Your task to perform on an android device: Go to CNN.com Image 0: 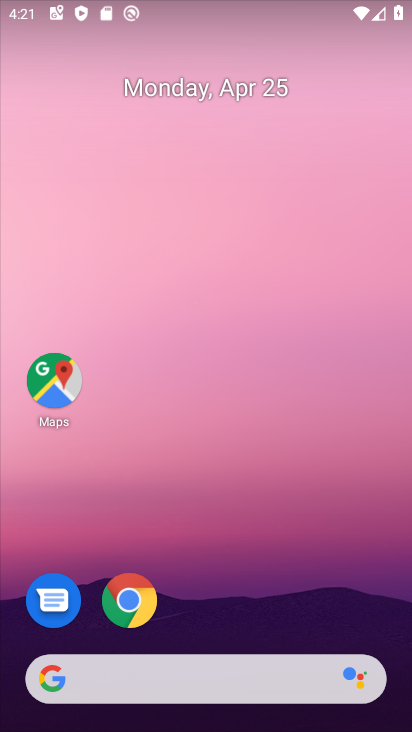
Step 0: drag from (335, 525) to (294, 19)
Your task to perform on an android device: Go to CNN.com Image 1: 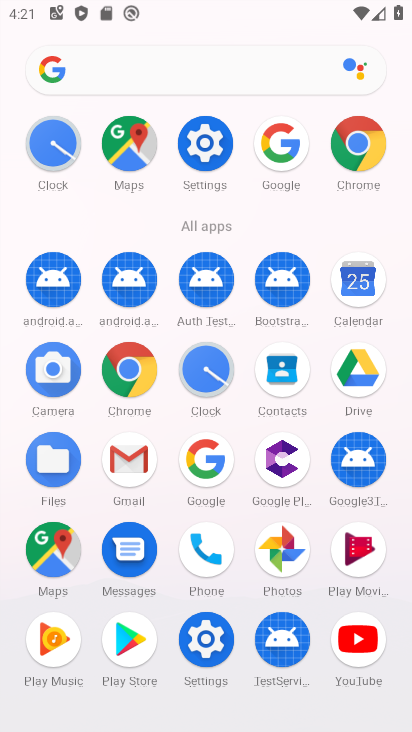
Step 1: click (355, 133)
Your task to perform on an android device: Go to CNN.com Image 2: 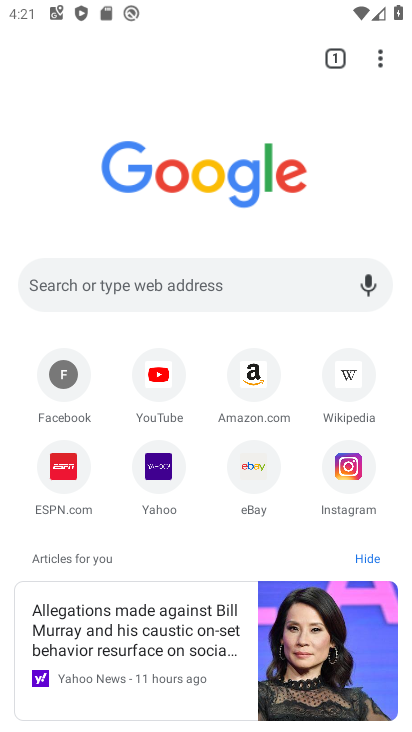
Step 2: click (215, 273)
Your task to perform on an android device: Go to CNN.com Image 3: 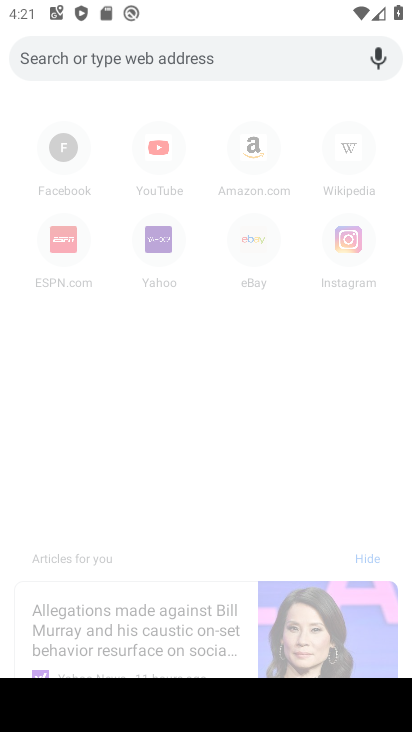
Step 3: type "CNN.com"
Your task to perform on an android device: Go to CNN.com Image 4: 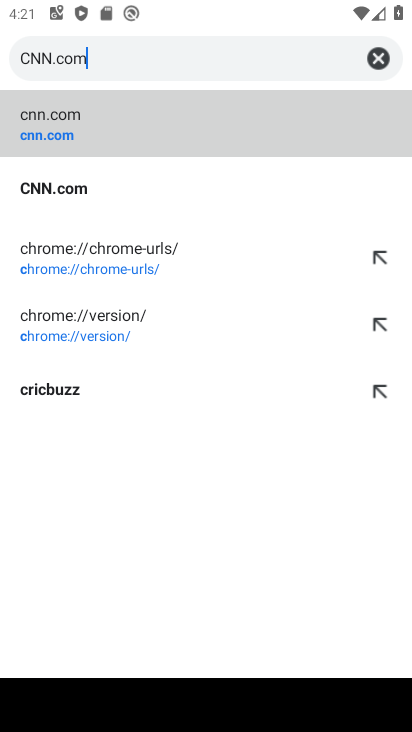
Step 4: type ""
Your task to perform on an android device: Go to CNN.com Image 5: 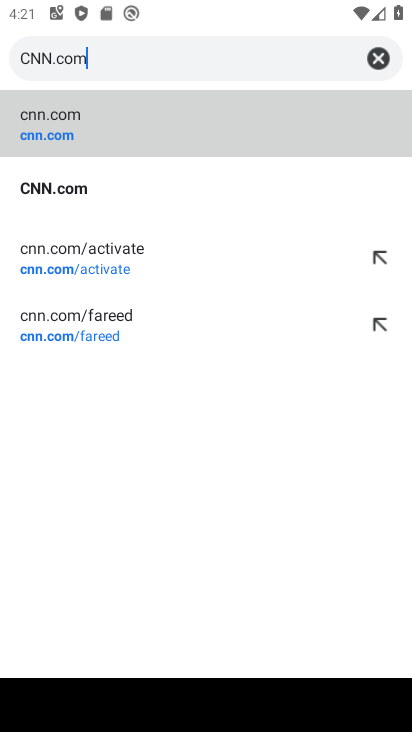
Step 5: click (96, 137)
Your task to perform on an android device: Go to CNN.com Image 6: 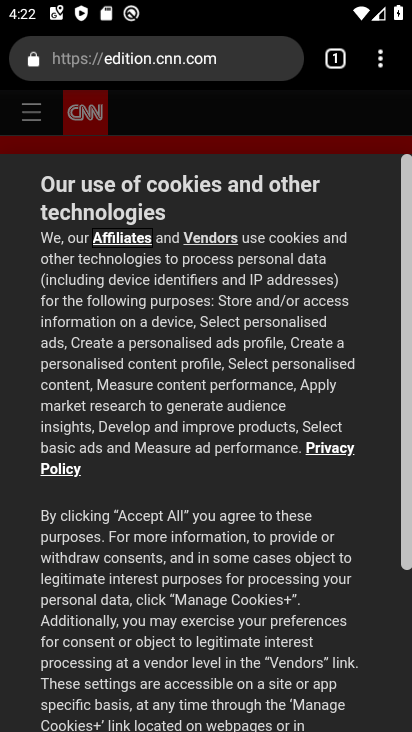
Step 6: task complete